Your task to perform on an android device: See recent photos Image 0: 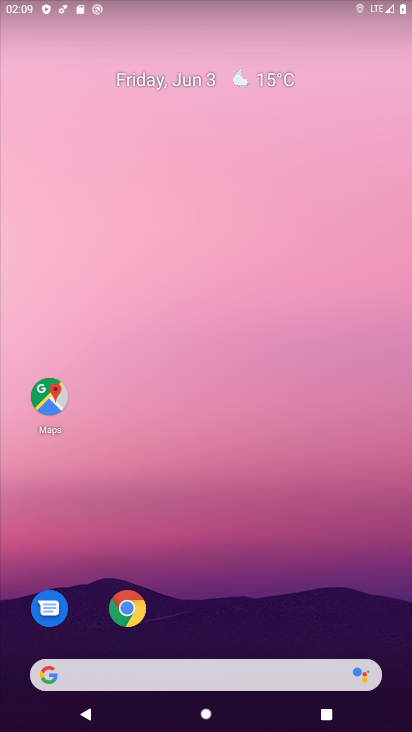
Step 0: drag from (224, 587) to (185, 321)
Your task to perform on an android device: See recent photos Image 1: 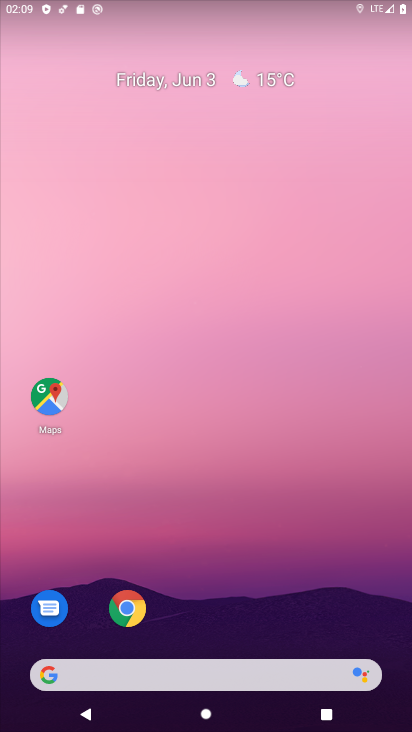
Step 1: drag from (231, 612) to (241, 222)
Your task to perform on an android device: See recent photos Image 2: 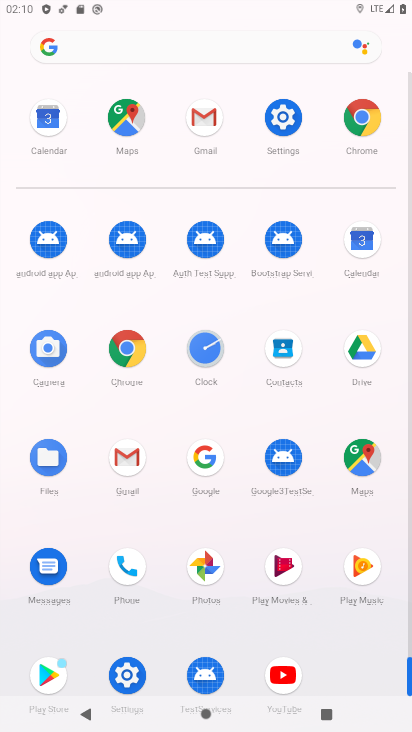
Step 2: click (208, 558)
Your task to perform on an android device: See recent photos Image 3: 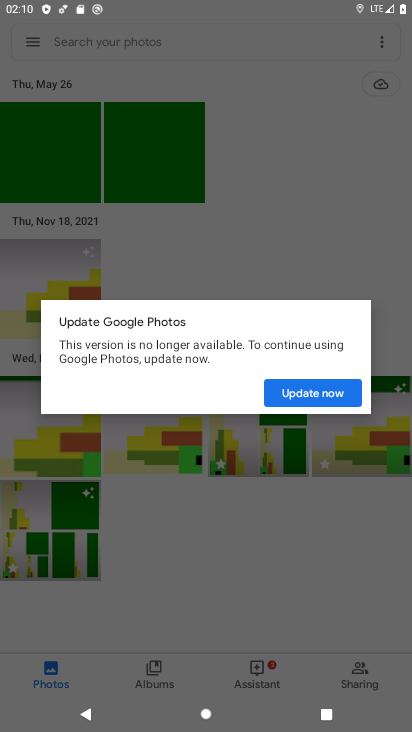
Step 3: click (301, 388)
Your task to perform on an android device: See recent photos Image 4: 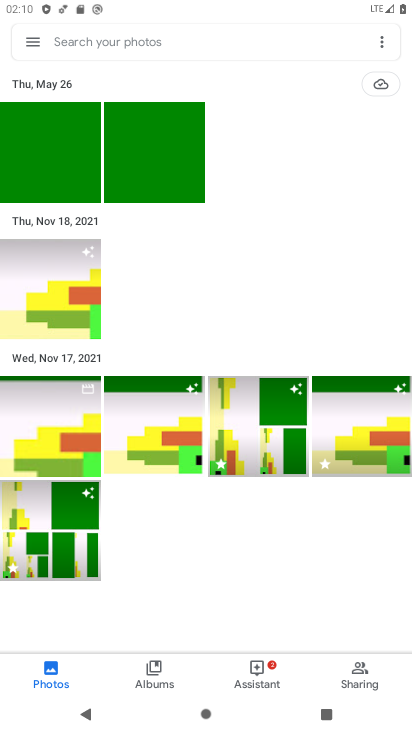
Step 4: task complete